Your task to perform on an android device: Go to display settings Image 0: 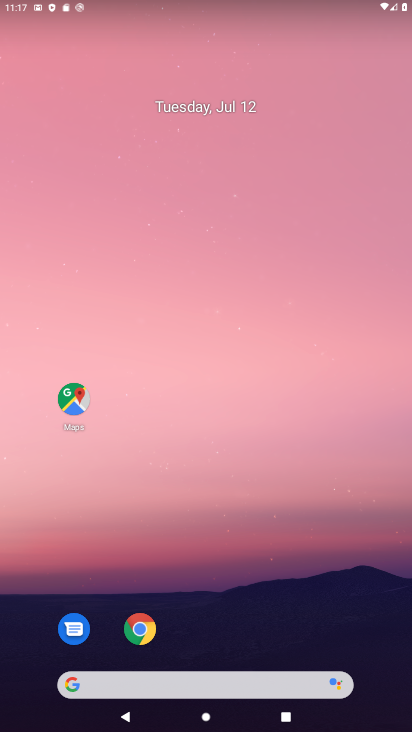
Step 0: drag from (289, 638) to (203, 150)
Your task to perform on an android device: Go to display settings Image 1: 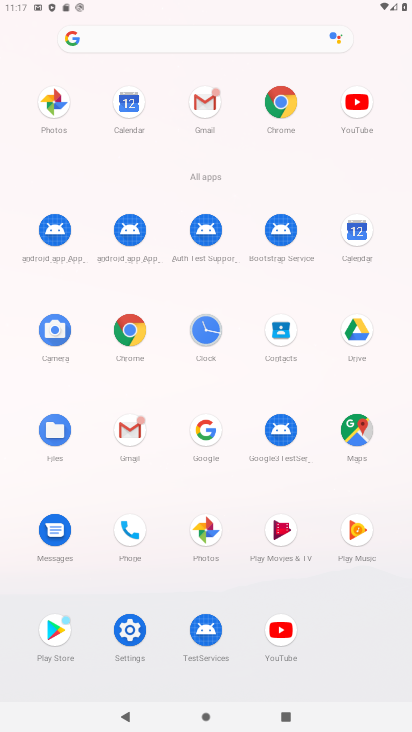
Step 1: click (134, 630)
Your task to perform on an android device: Go to display settings Image 2: 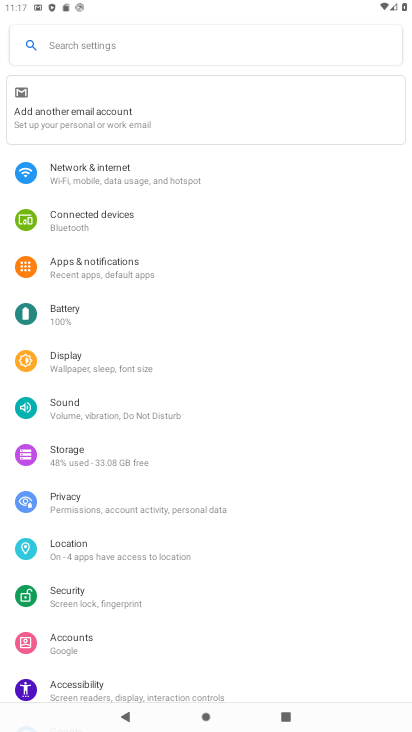
Step 2: click (97, 367)
Your task to perform on an android device: Go to display settings Image 3: 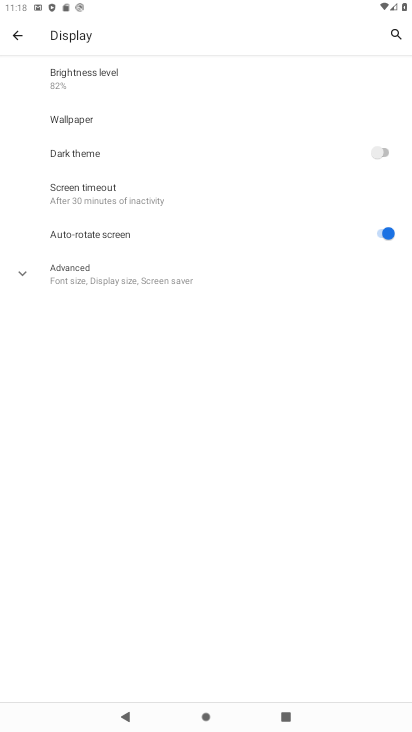
Step 3: task complete